Your task to perform on an android device: Go to display settings Image 0: 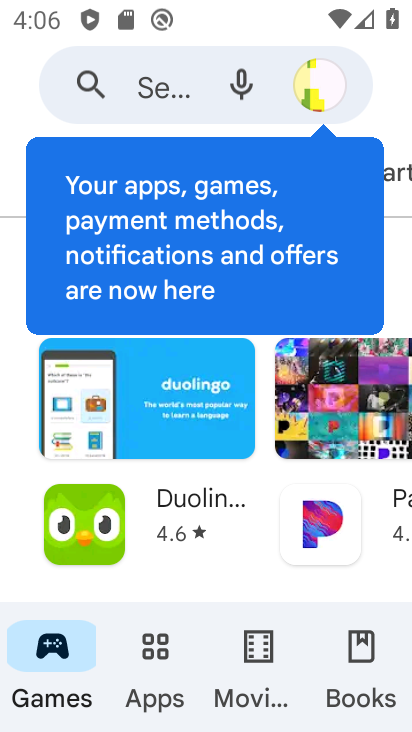
Step 0: press back button
Your task to perform on an android device: Go to display settings Image 1: 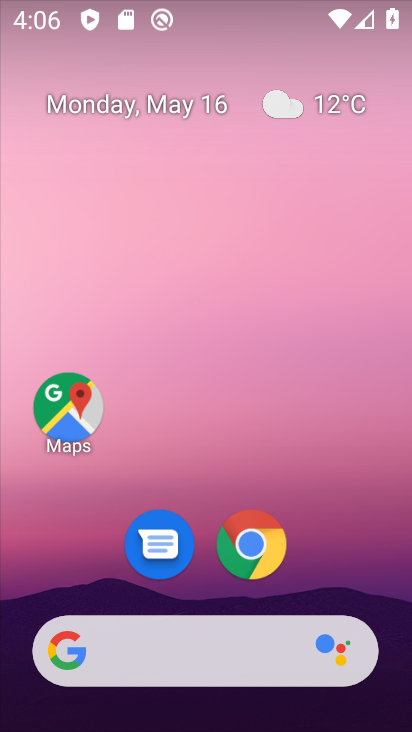
Step 1: drag from (316, 568) to (241, 145)
Your task to perform on an android device: Go to display settings Image 2: 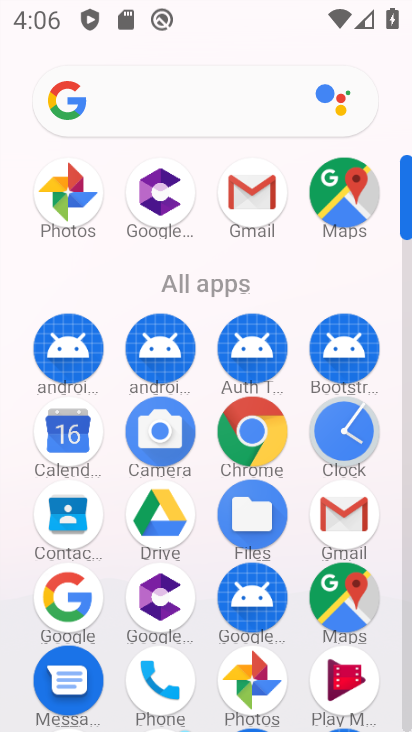
Step 2: drag from (114, 597) to (169, 286)
Your task to perform on an android device: Go to display settings Image 3: 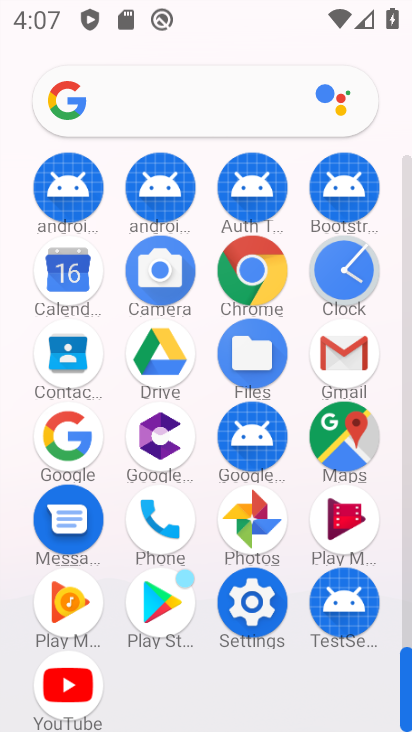
Step 3: click (252, 603)
Your task to perform on an android device: Go to display settings Image 4: 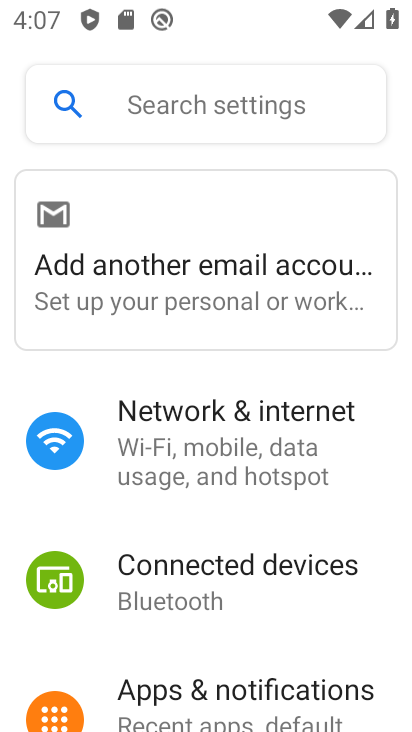
Step 4: drag from (168, 643) to (193, 528)
Your task to perform on an android device: Go to display settings Image 5: 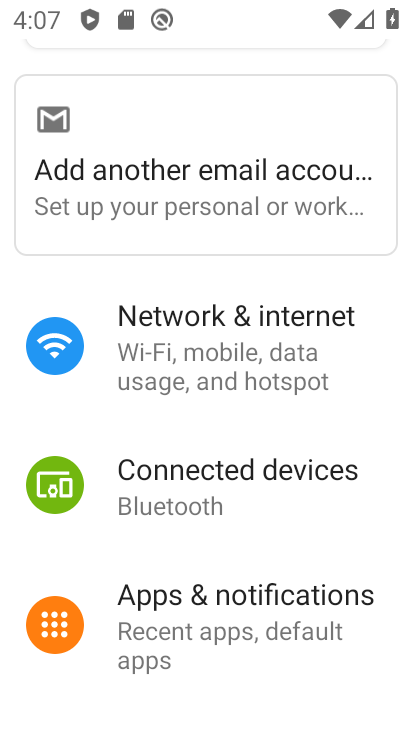
Step 5: drag from (193, 660) to (215, 496)
Your task to perform on an android device: Go to display settings Image 6: 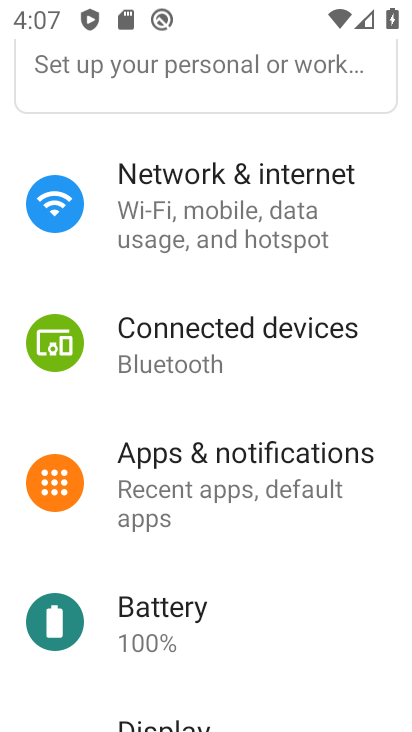
Step 6: drag from (241, 649) to (244, 454)
Your task to perform on an android device: Go to display settings Image 7: 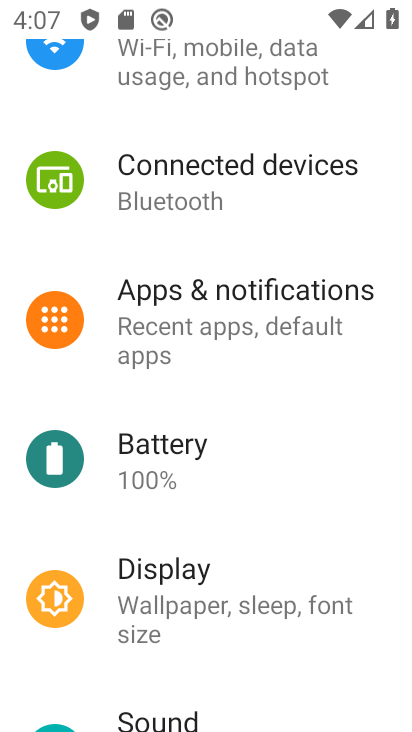
Step 7: click (183, 566)
Your task to perform on an android device: Go to display settings Image 8: 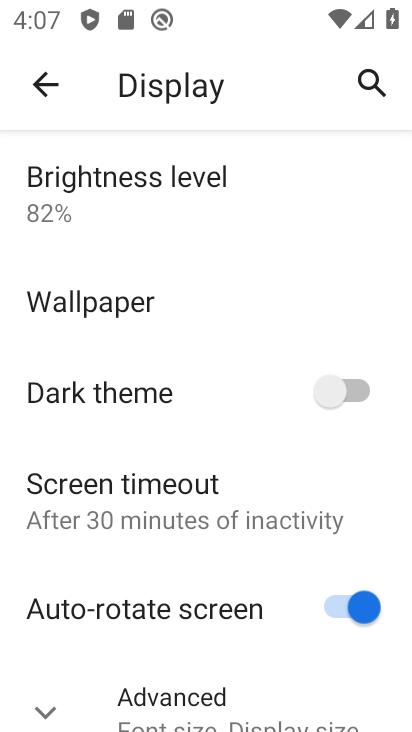
Step 8: task complete